Your task to perform on an android device: Is it going to rain today? Image 0: 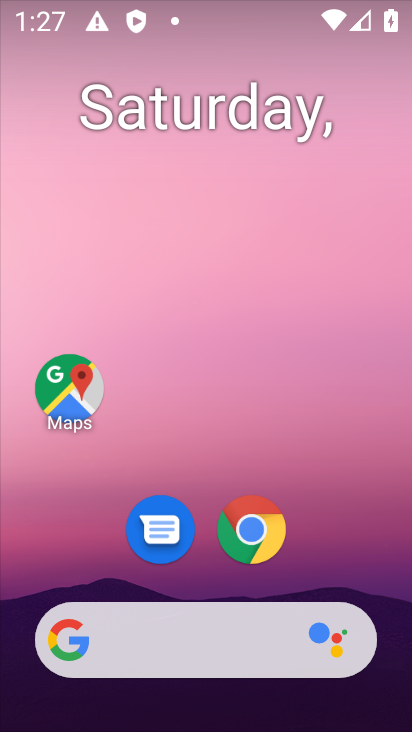
Step 0: click (269, 528)
Your task to perform on an android device: Is it going to rain today? Image 1: 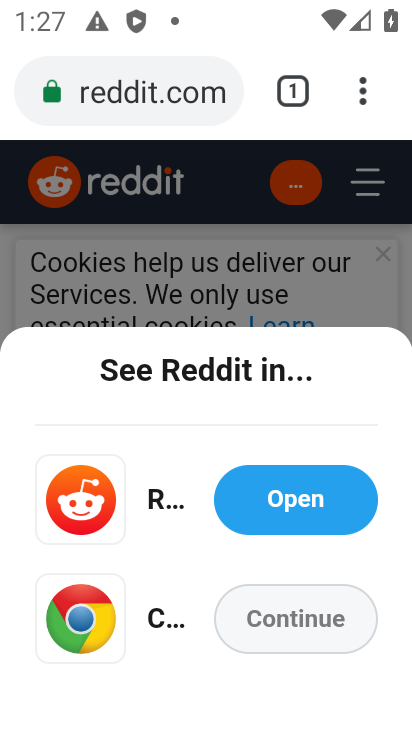
Step 1: click (147, 123)
Your task to perform on an android device: Is it going to rain today? Image 2: 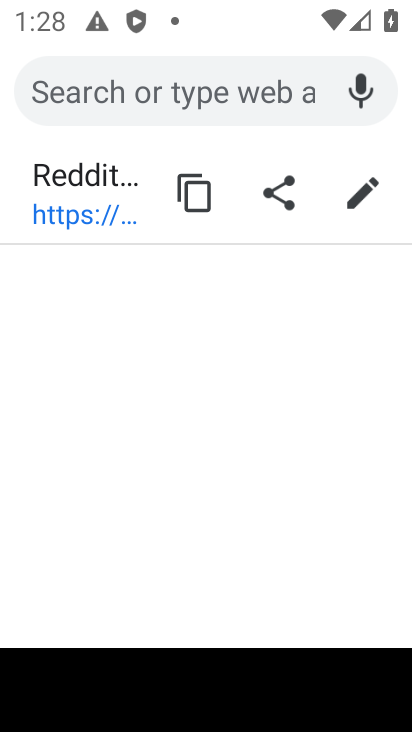
Step 2: type "Is it going to rain today?"
Your task to perform on an android device: Is it going to rain today? Image 3: 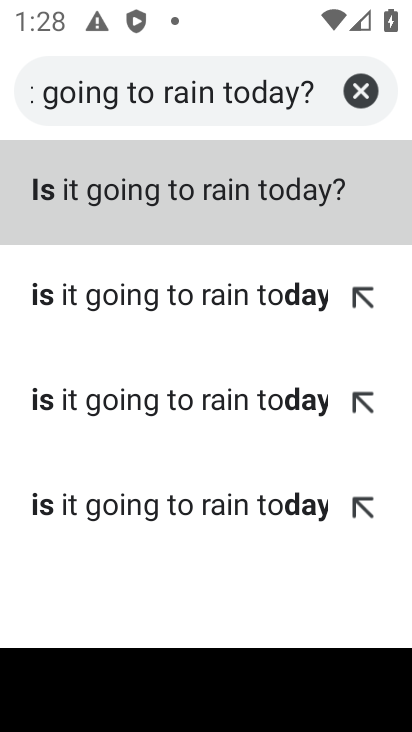
Step 3: click (150, 181)
Your task to perform on an android device: Is it going to rain today? Image 4: 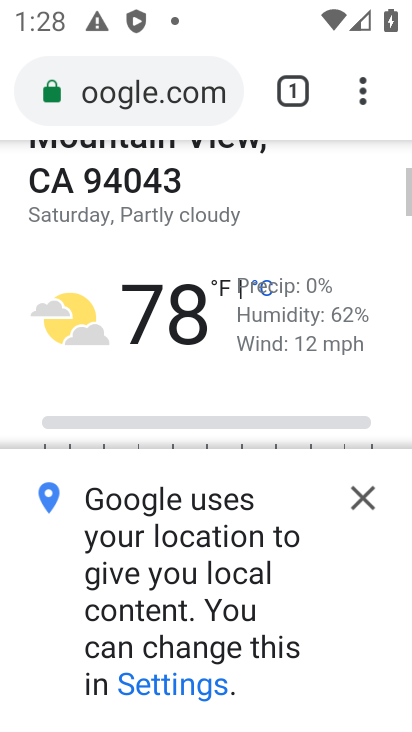
Step 4: click (360, 493)
Your task to perform on an android device: Is it going to rain today? Image 5: 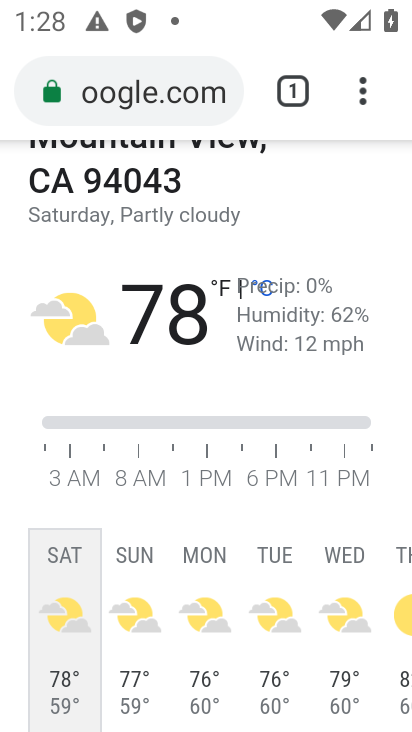
Step 5: task complete